Your task to perform on an android device: find which apps use the phone's location Image 0: 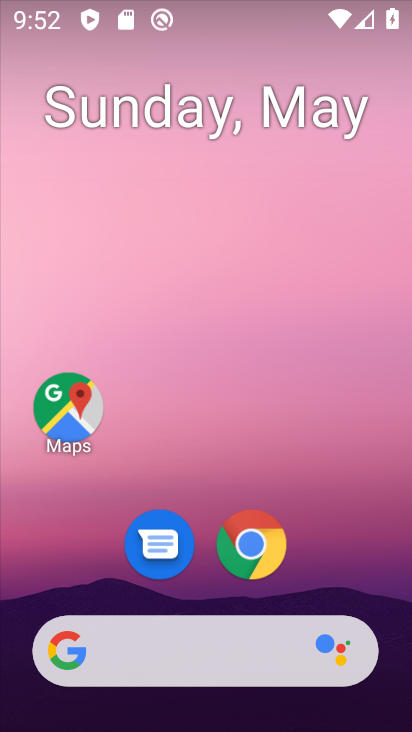
Step 0: drag from (322, 545) to (310, 153)
Your task to perform on an android device: find which apps use the phone's location Image 1: 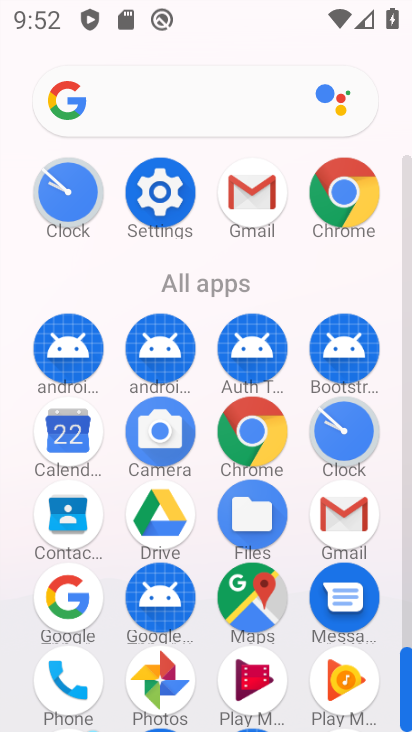
Step 1: click (137, 207)
Your task to perform on an android device: find which apps use the phone's location Image 2: 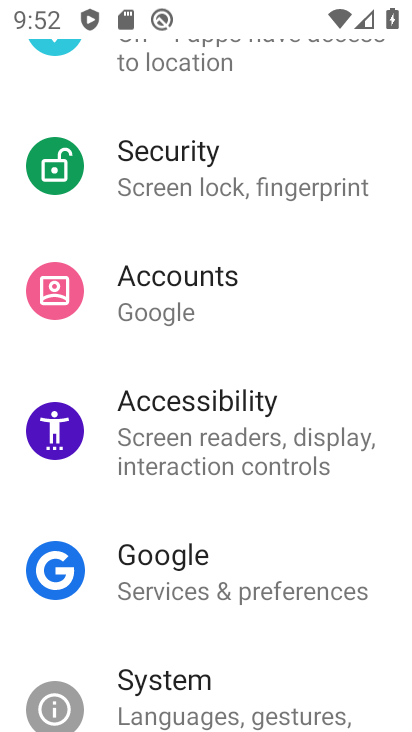
Step 2: click (204, 64)
Your task to perform on an android device: find which apps use the phone's location Image 3: 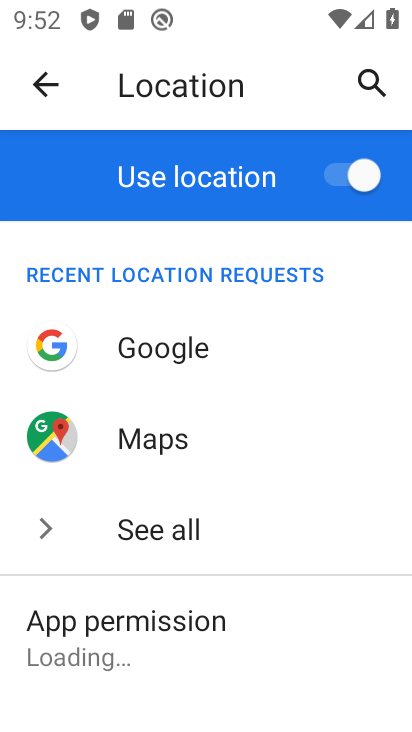
Step 3: task complete